Your task to perform on an android device: move a message to another label in the gmail app Image 0: 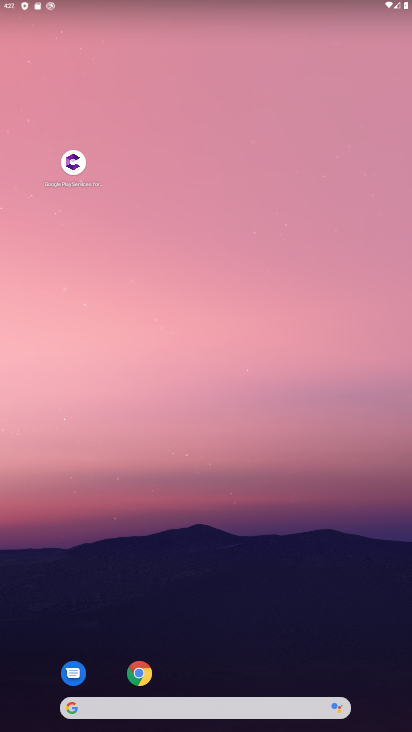
Step 0: press home button
Your task to perform on an android device: move a message to another label in the gmail app Image 1: 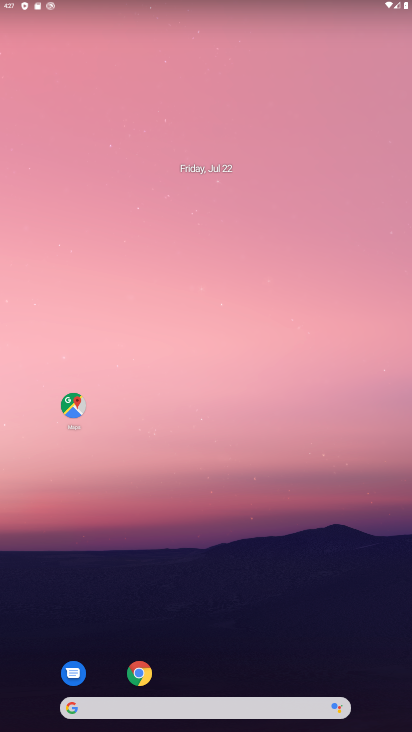
Step 1: drag from (241, 562) to (277, 33)
Your task to perform on an android device: move a message to another label in the gmail app Image 2: 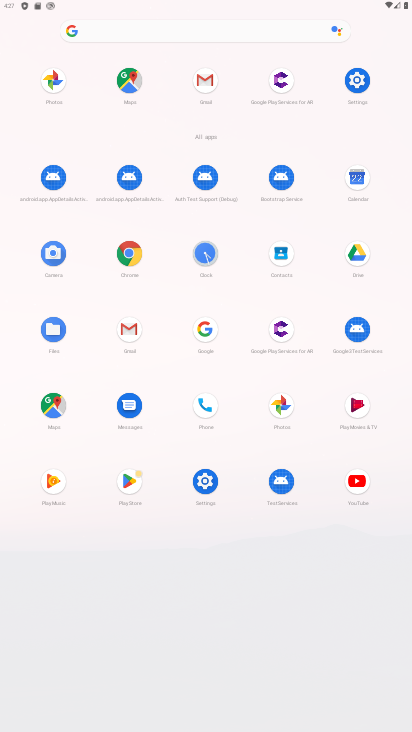
Step 2: click (201, 84)
Your task to perform on an android device: move a message to another label in the gmail app Image 3: 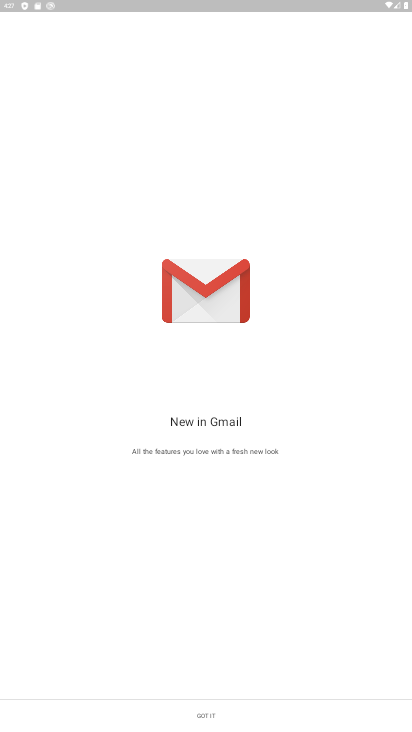
Step 3: click (210, 714)
Your task to perform on an android device: move a message to another label in the gmail app Image 4: 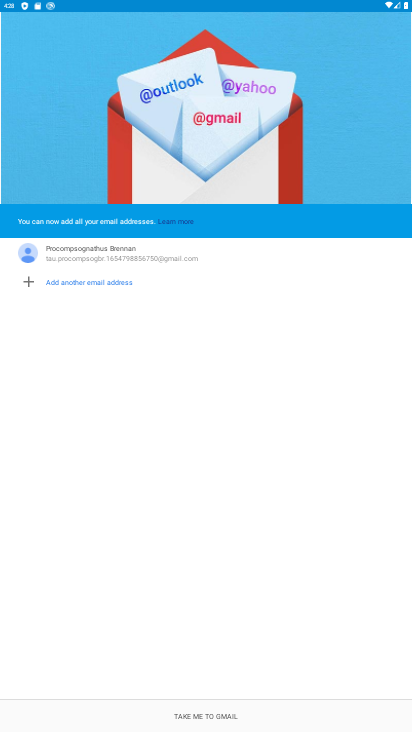
Step 4: click (213, 722)
Your task to perform on an android device: move a message to another label in the gmail app Image 5: 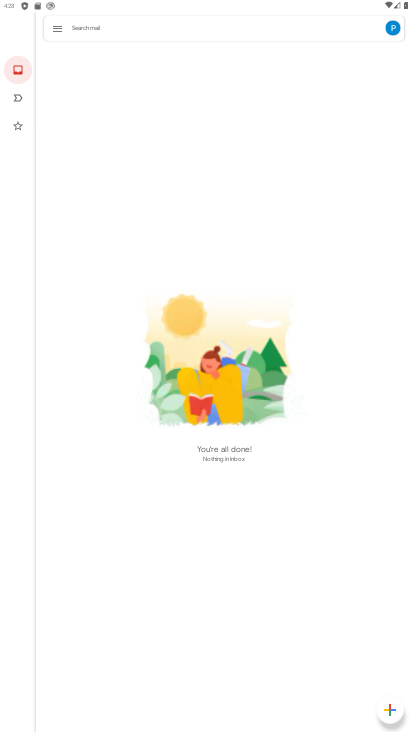
Step 5: click (55, 28)
Your task to perform on an android device: move a message to another label in the gmail app Image 6: 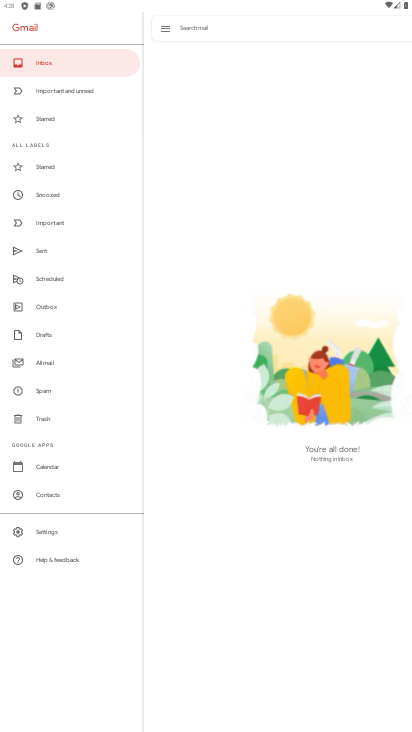
Step 6: click (48, 362)
Your task to perform on an android device: move a message to another label in the gmail app Image 7: 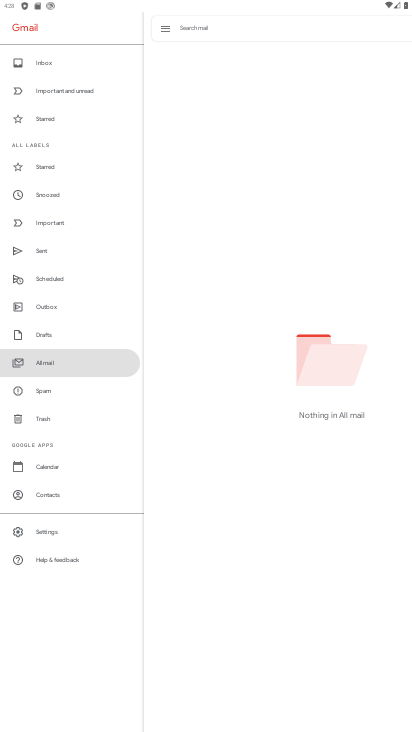
Step 7: task complete